Your task to perform on an android device: Open notification settings Image 0: 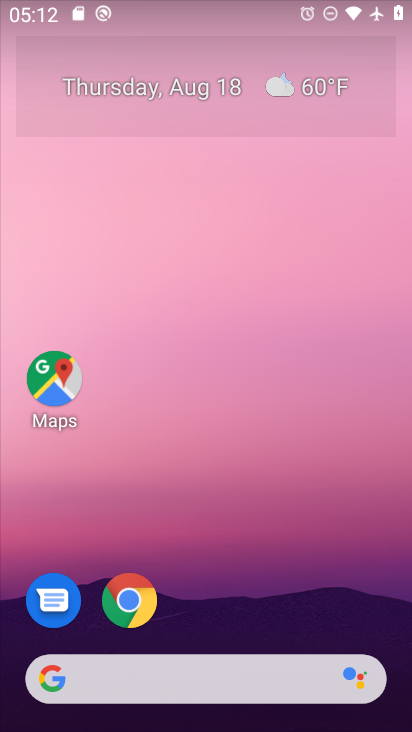
Step 0: press home button
Your task to perform on an android device: Open notification settings Image 1: 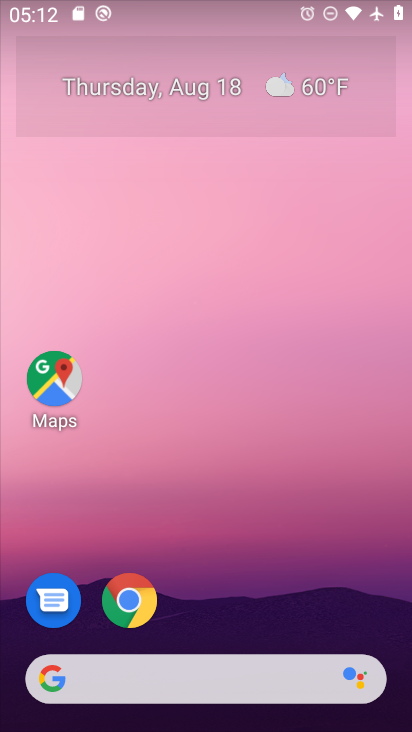
Step 1: drag from (246, 640) to (257, 137)
Your task to perform on an android device: Open notification settings Image 2: 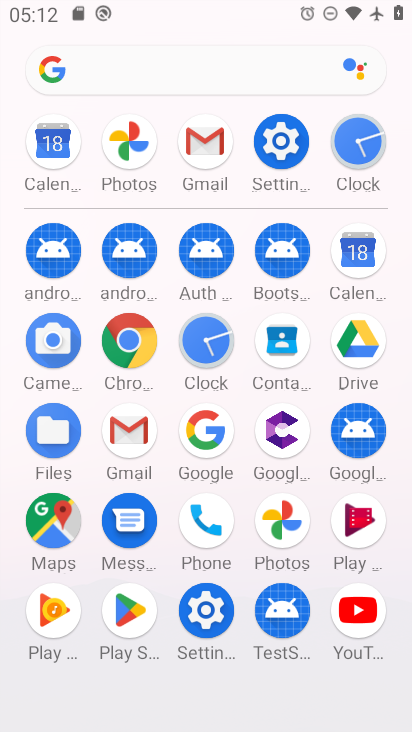
Step 2: click (287, 153)
Your task to perform on an android device: Open notification settings Image 3: 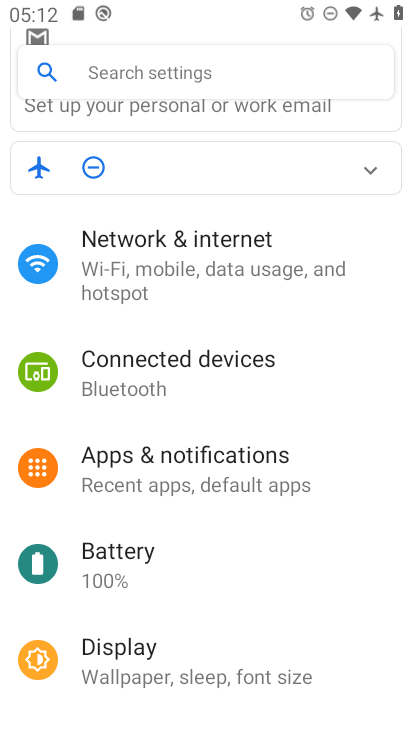
Step 3: click (171, 466)
Your task to perform on an android device: Open notification settings Image 4: 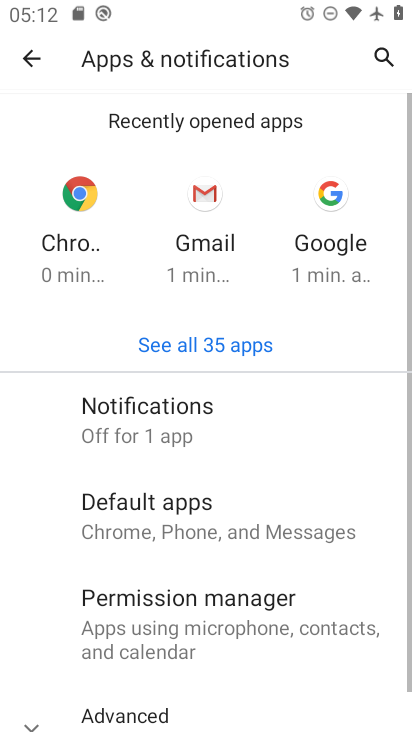
Step 4: click (151, 421)
Your task to perform on an android device: Open notification settings Image 5: 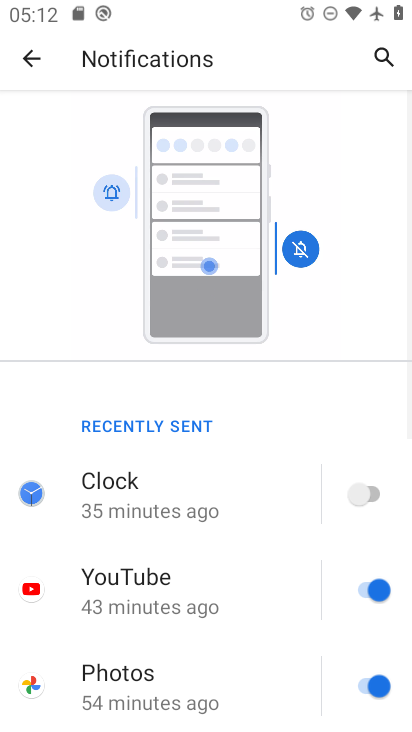
Step 5: task complete